Your task to perform on an android device: star an email in the gmail app Image 0: 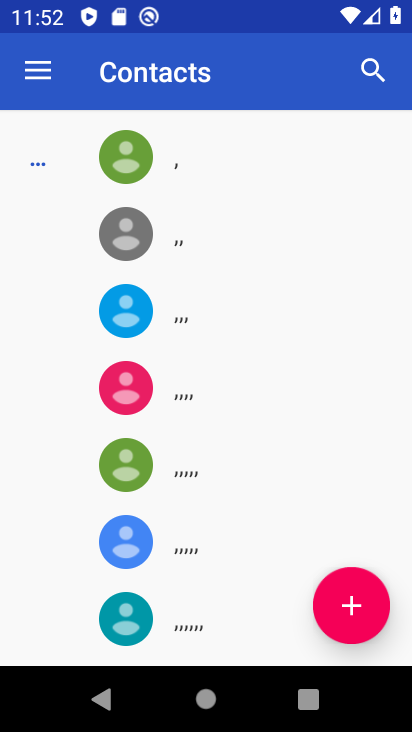
Step 0: press home button
Your task to perform on an android device: star an email in the gmail app Image 1: 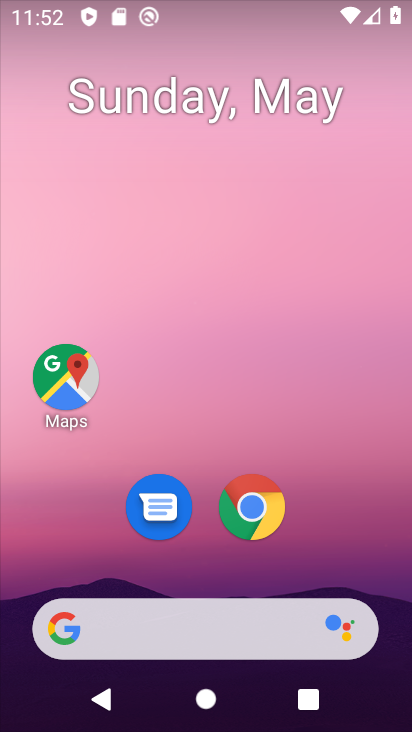
Step 1: click (245, 183)
Your task to perform on an android device: star an email in the gmail app Image 2: 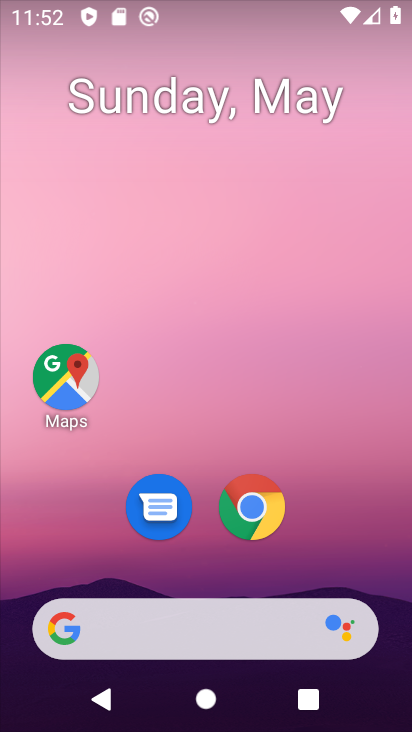
Step 2: drag from (225, 721) to (225, 79)
Your task to perform on an android device: star an email in the gmail app Image 3: 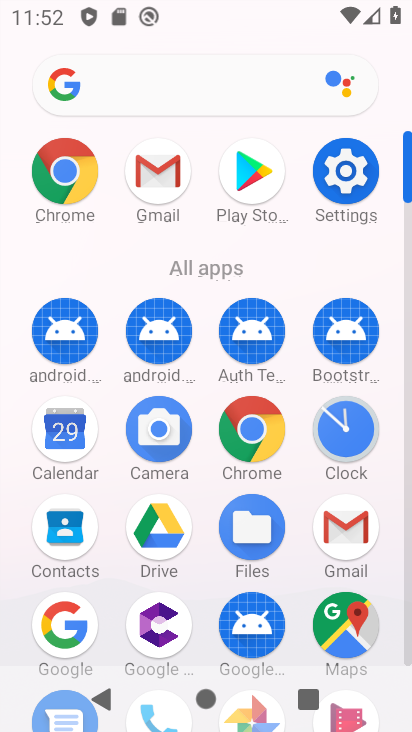
Step 3: click (348, 524)
Your task to perform on an android device: star an email in the gmail app Image 4: 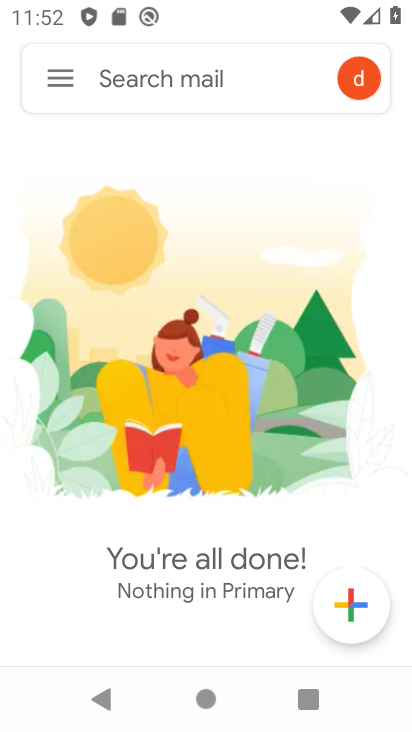
Step 4: task complete